Your task to perform on an android device: set the stopwatch Image 0: 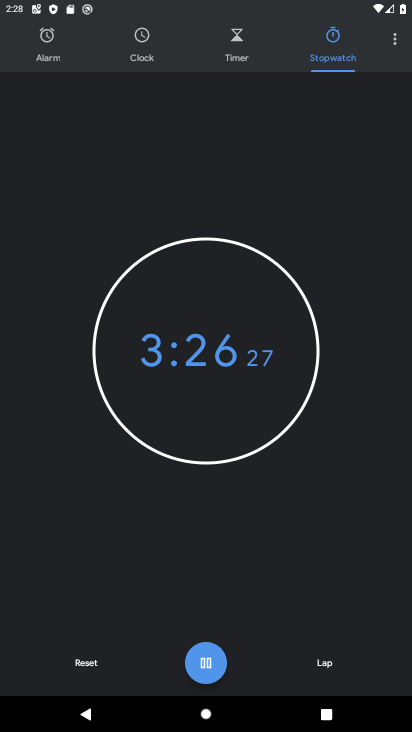
Step 0: task complete